Your task to perform on an android device: turn off priority inbox in the gmail app Image 0: 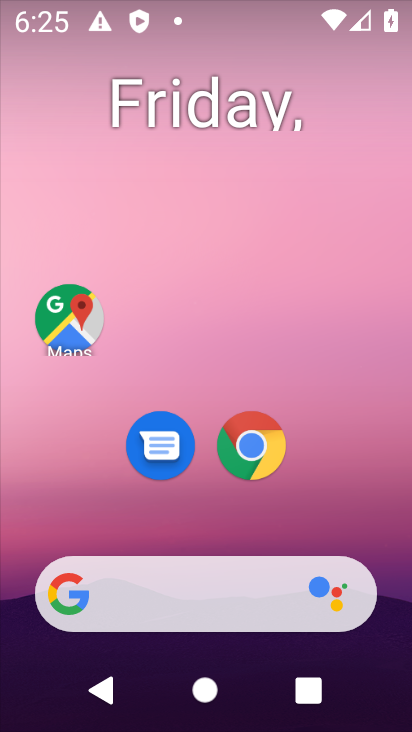
Step 0: drag from (166, 512) to (225, 5)
Your task to perform on an android device: turn off priority inbox in the gmail app Image 1: 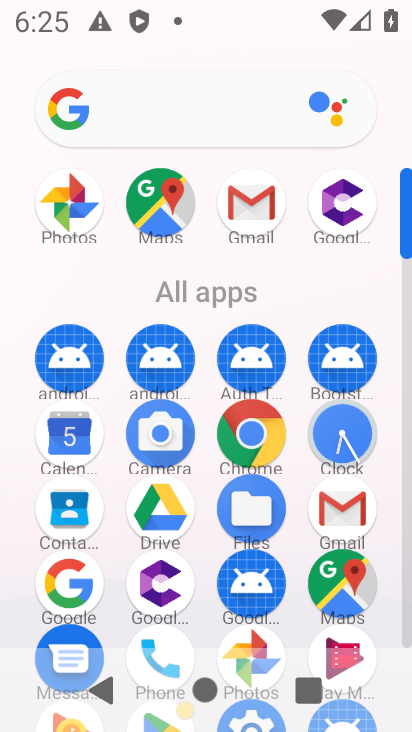
Step 1: click (338, 481)
Your task to perform on an android device: turn off priority inbox in the gmail app Image 2: 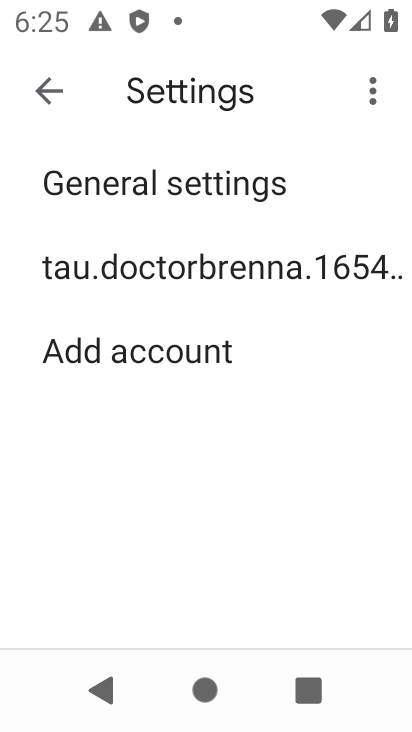
Step 2: click (118, 248)
Your task to perform on an android device: turn off priority inbox in the gmail app Image 3: 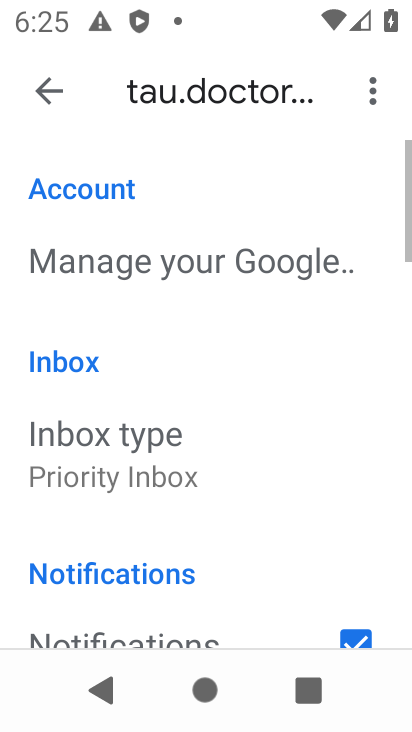
Step 3: click (113, 454)
Your task to perform on an android device: turn off priority inbox in the gmail app Image 4: 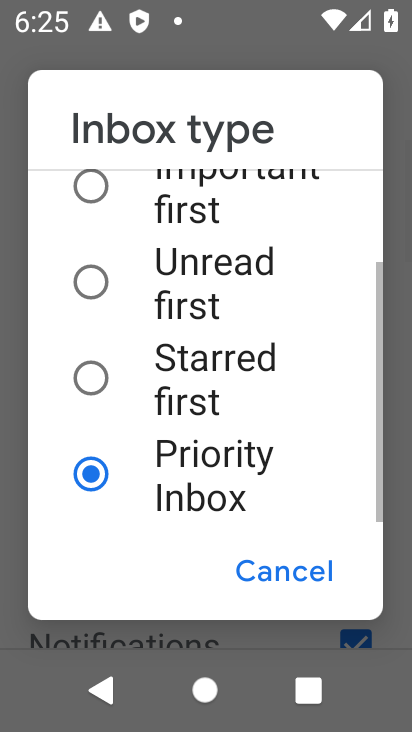
Step 4: drag from (153, 180) to (152, 529)
Your task to perform on an android device: turn off priority inbox in the gmail app Image 5: 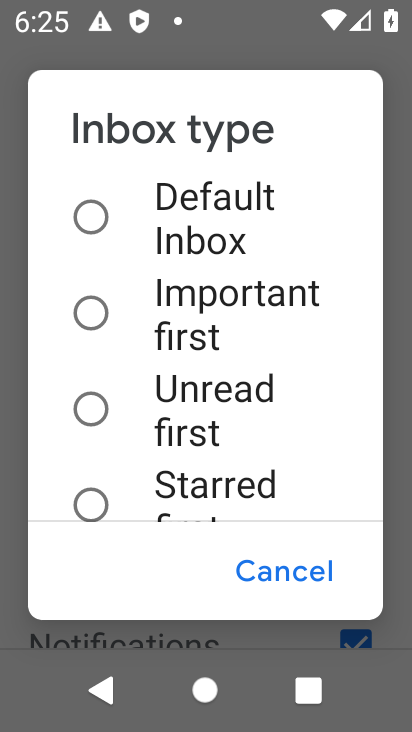
Step 5: click (151, 221)
Your task to perform on an android device: turn off priority inbox in the gmail app Image 6: 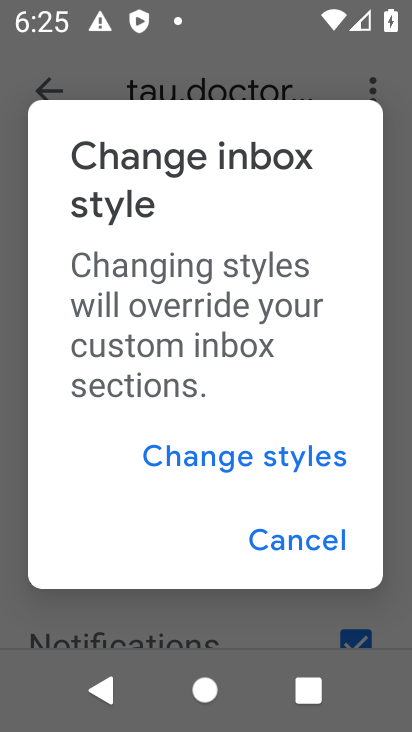
Step 6: click (283, 528)
Your task to perform on an android device: turn off priority inbox in the gmail app Image 7: 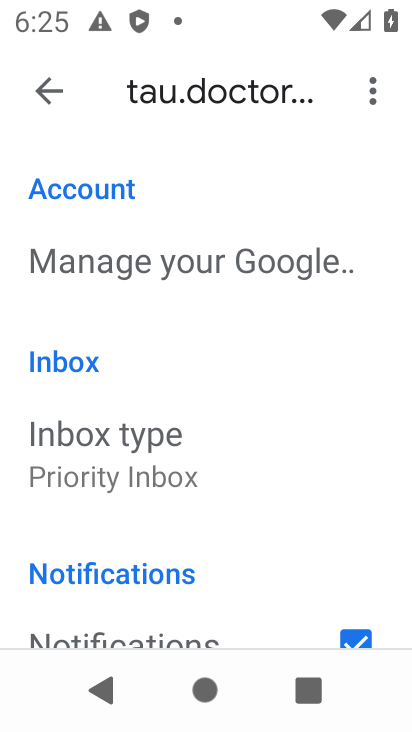
Step 7: task complete